Your task to perform on an android device: Open Wikipedia Image 0: 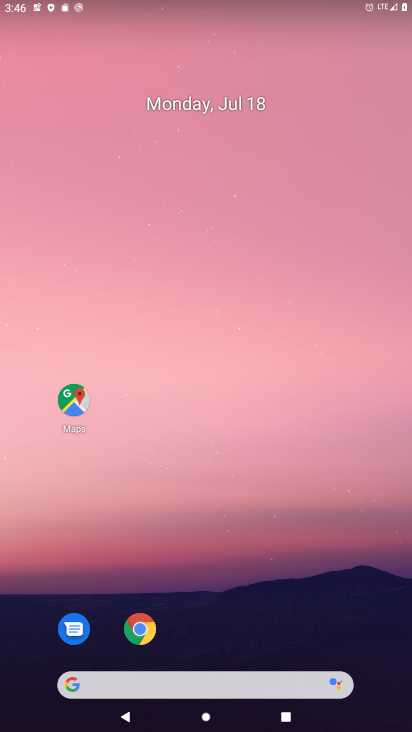
Step 0: click (132, 631)
Your task to perform on an android device: Open Wikipedia Image 1: 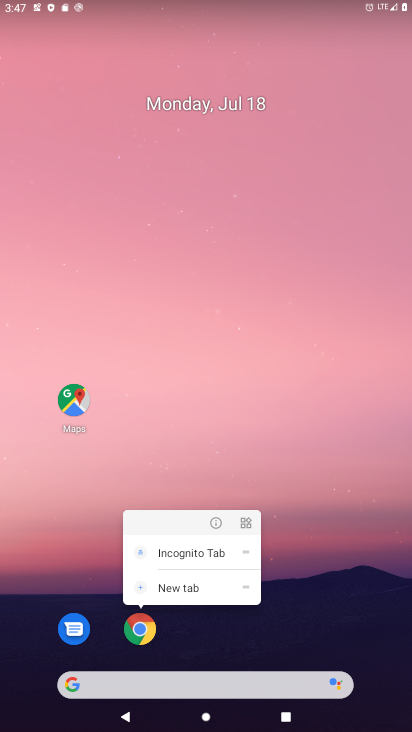
Step 1: click (143, 637)
Your task to perform on an android device: Open Wikipedia Image 2: 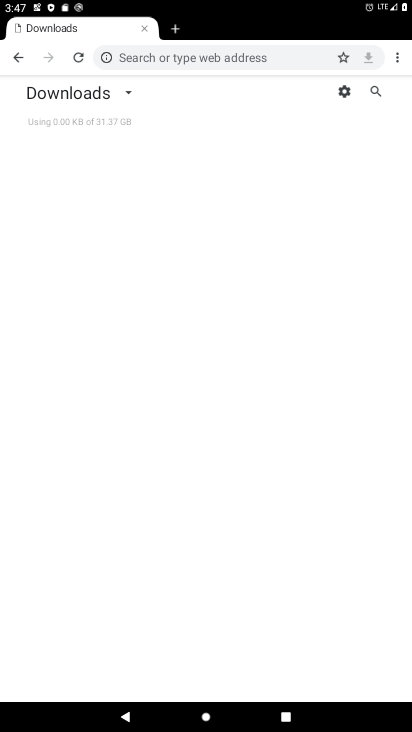
Step 2: click (138, 630)
Your task to perform on an android device: Open Wikipedia Image 3: 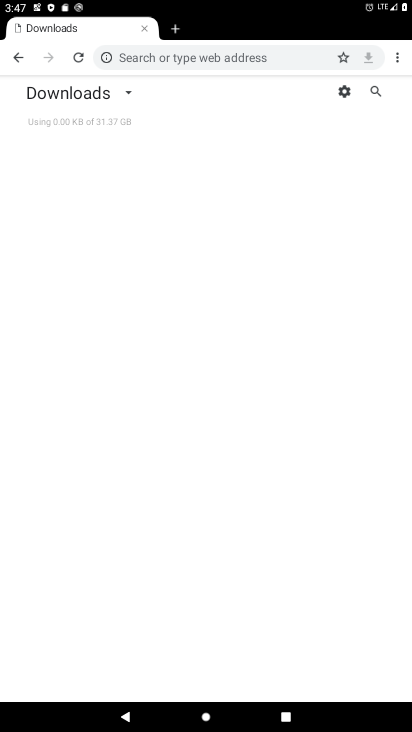
Step 3: click (202, 57)
Your task to perform on an android device: Open Wikipedia Image 4: 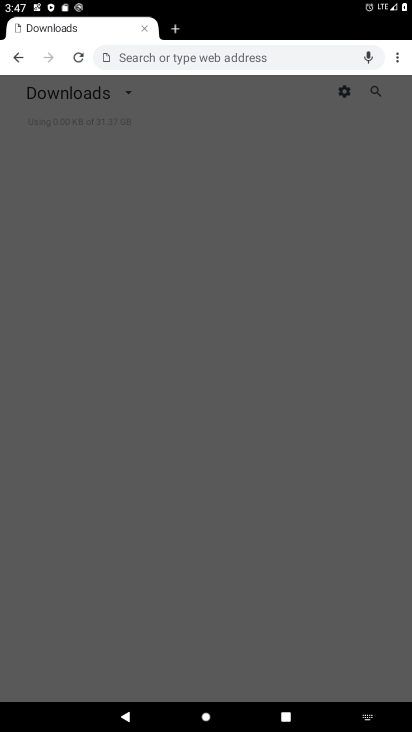
Step 4: type "wikipedia"
Your task to perform on an android device: Open Wikipedia Image 5: 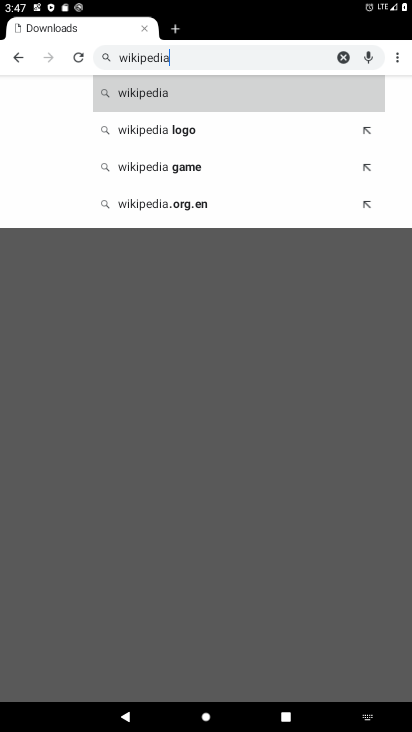
Step 5: click (153, 103)
Your task to perform on an android device: Open Wikipedia Image 6: 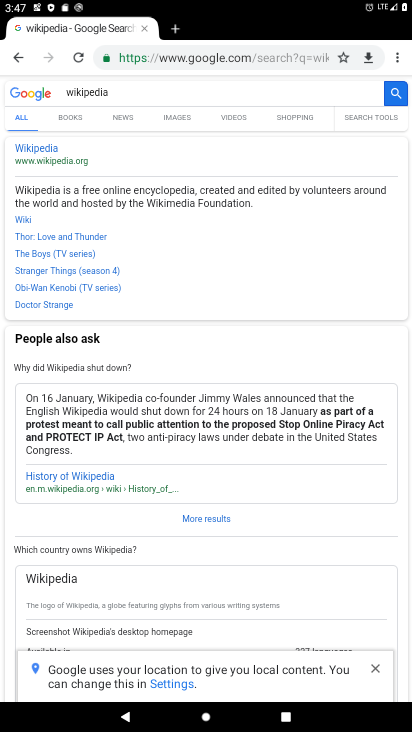
Step 6: task complete